Your task to perform on an android device: See recent photos Image 0: 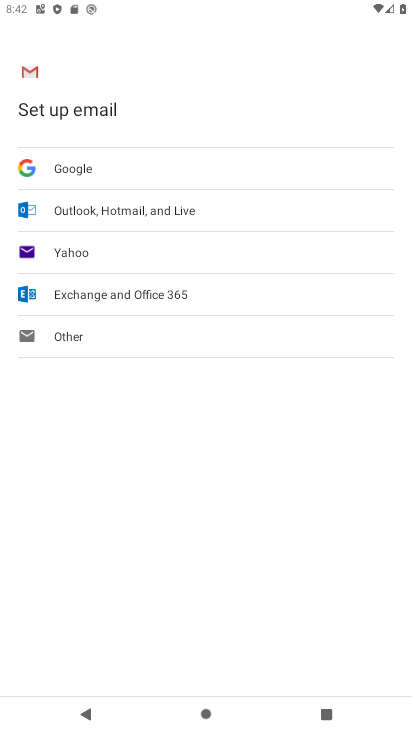
Step 0: press home button
Your task to perform on an android device: See recent photos Image 1: 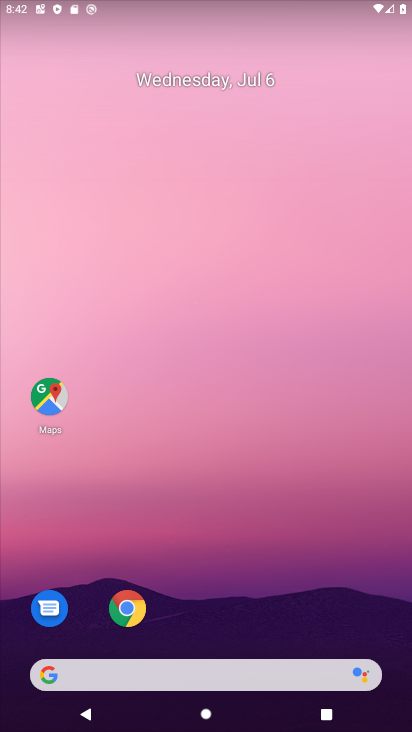
Step 1: drag from (204, 526) to (185, 268)
Your task to perform on an android device: See recent photos Image 2: 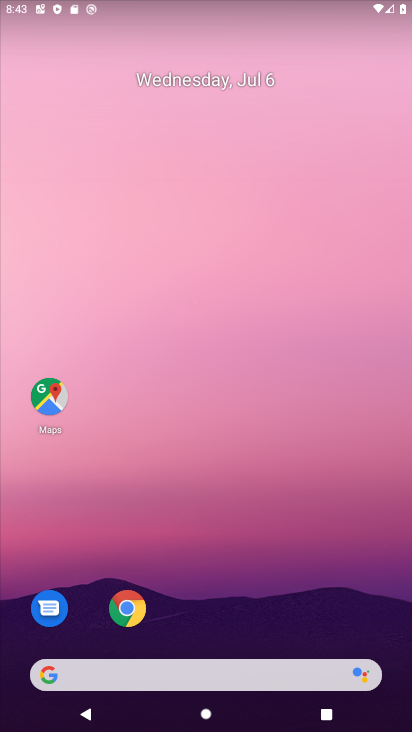
Step 2: drag from (187, 646) to (191, 191)
Your task to perform on an android device: See recent photos Image 3: 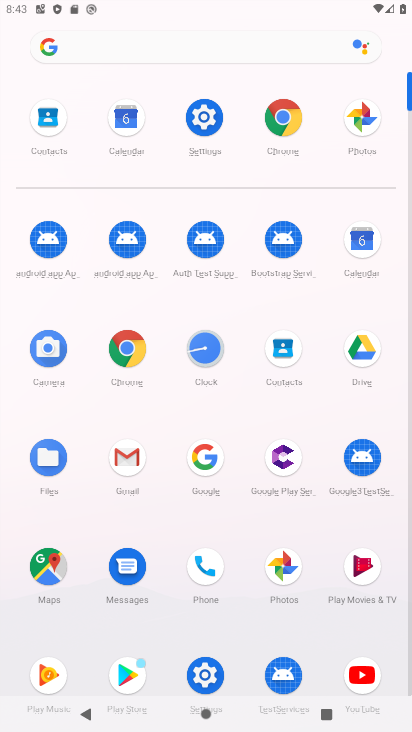
Step 3: click (275, 566)
Your task to perform on an android device: See recent photos Image 4: 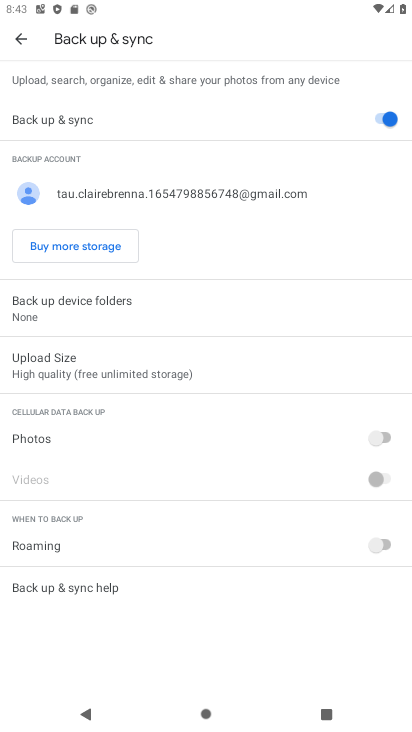
Step 4: click (19, 39)
Your task to perform on an android device: See recent photos Image 5: 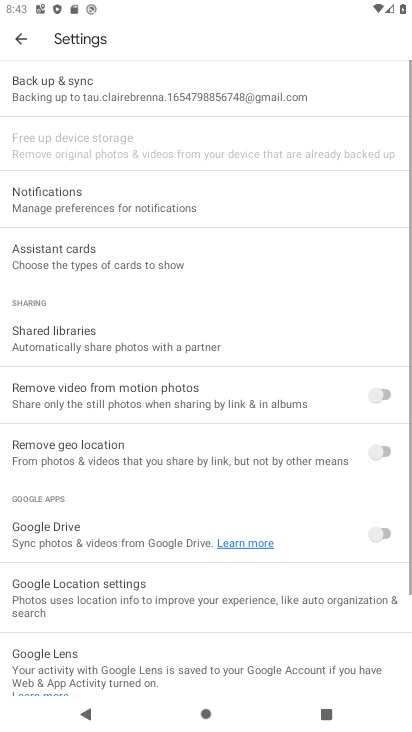
Step 5: click (19, 39)
Your task to perform on an android device: See recent photos Image 6: 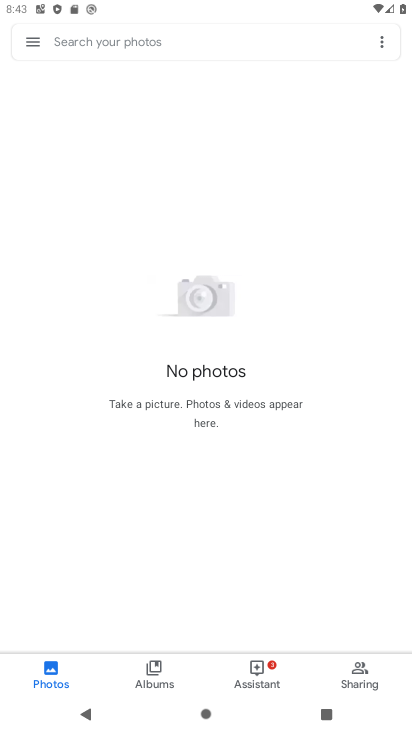
Step 6: task complete